Your task to perform on an android device: delete a single message in the gmail app Image 0: 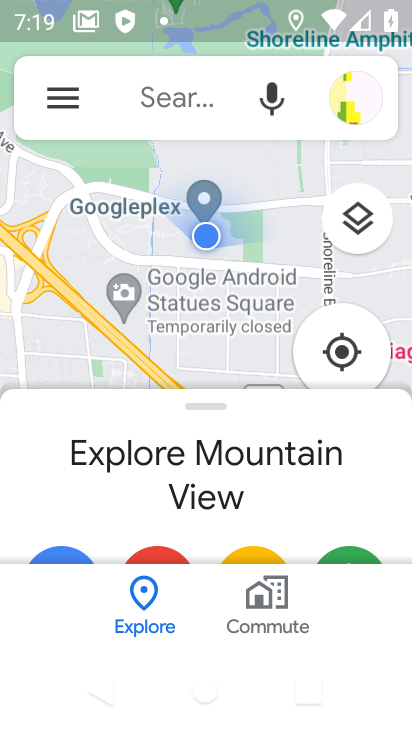
Step 0: press home button
Your task to perform on an android device: delete a single message in the gmail app Image 1: 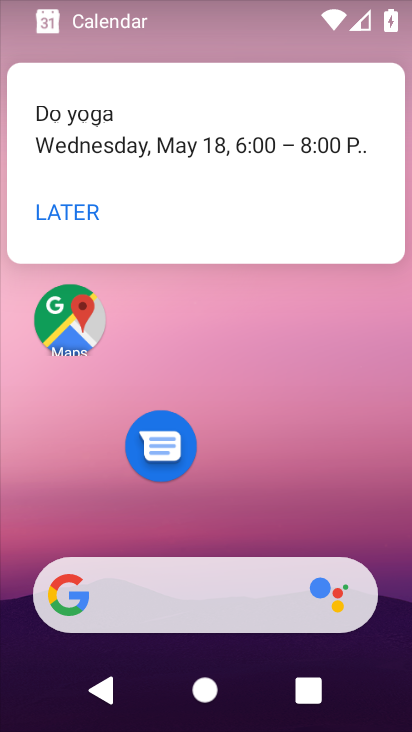
Step 1: drag from (239, 510) to (203, 133)
Your task to perform on an android device: delete a single message in the gmail app Image 2: 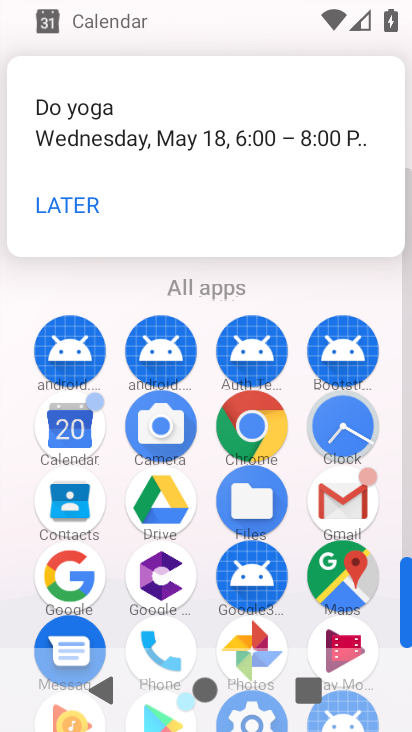
Step 2: click (63, 196)
Your task to perform on an android device: delete a single message in the gmail app Image 3: 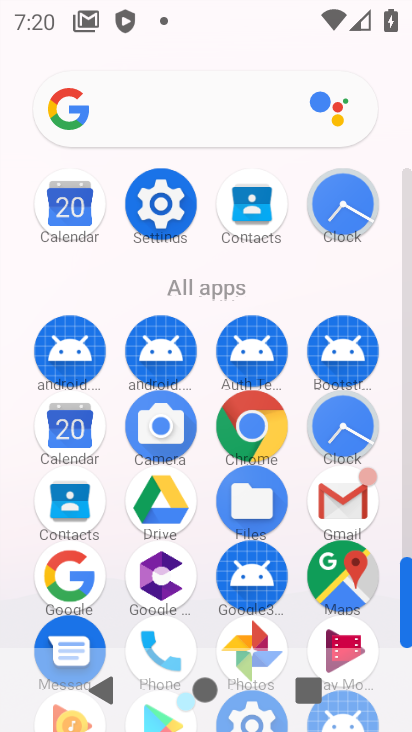
Step 3: click (338, 487)
Your task to perform on an android device: delete a single message in the gmail app Image 4: 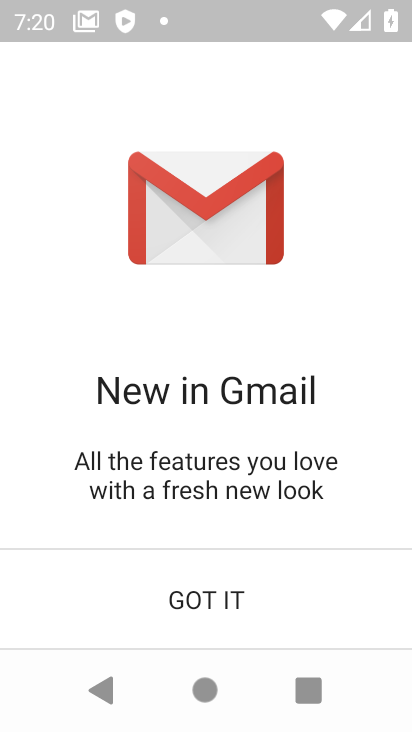
Step 4: click (204, 593)
Your task to perform on an android device: delete a single message in the gmail app Image 5: 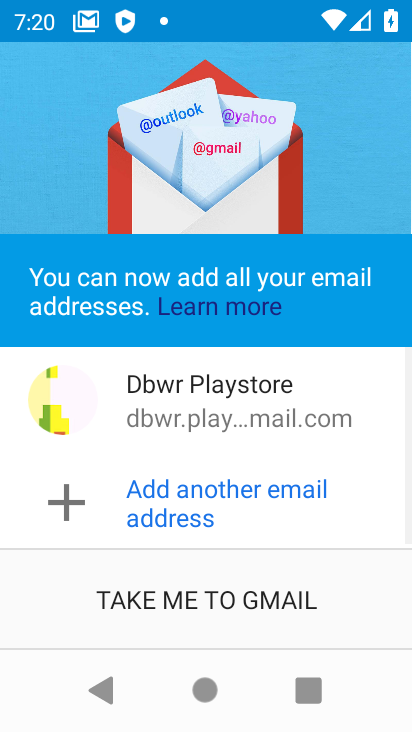
Step 5: click (204, 593)
Your task to perform on an android device: delete a single message in the gmail app Image 6: 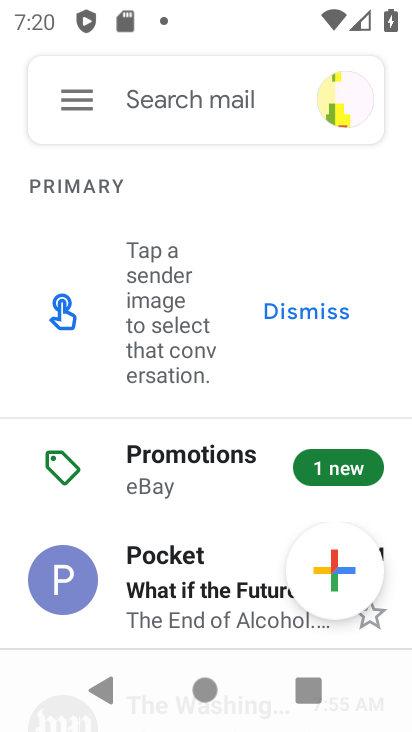
Step 6: drag from (194, 545) to (191, 226)
Your task to perform on an android device: delete a single message in the gmail app Image 7: 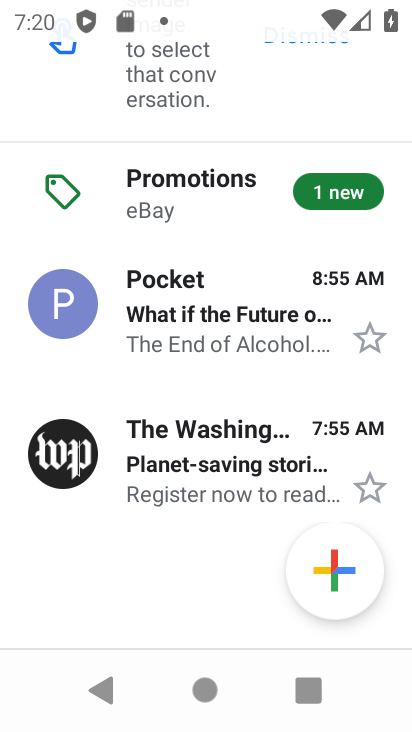
Step 7: click (171, 290)
Your task to perform on an android device: delete a single message in the gmail app Image 8: 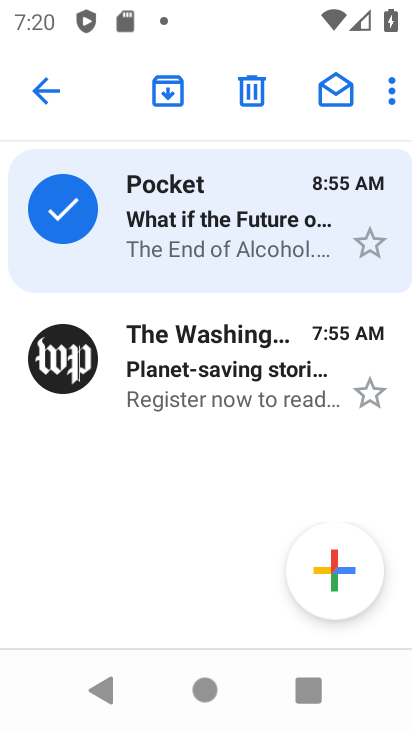
Step 8: click (252, 94)
Your task to perform on an android device: delete a single message in the gmail app Image 9: 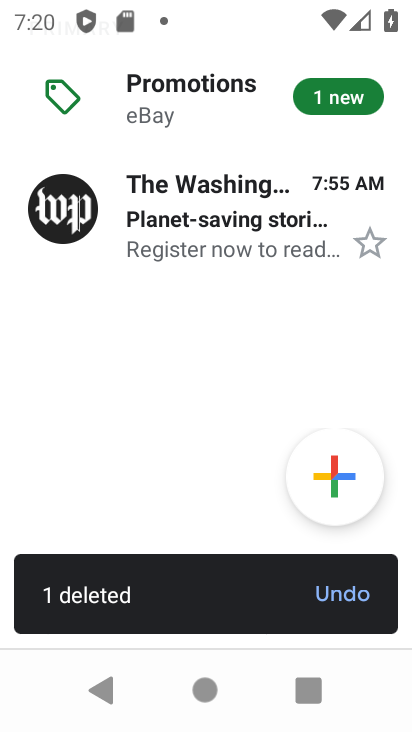
Step 9: task complete